Your task to perform on an android device: open app "The Home Depot" (install if not already installed) Image 0: 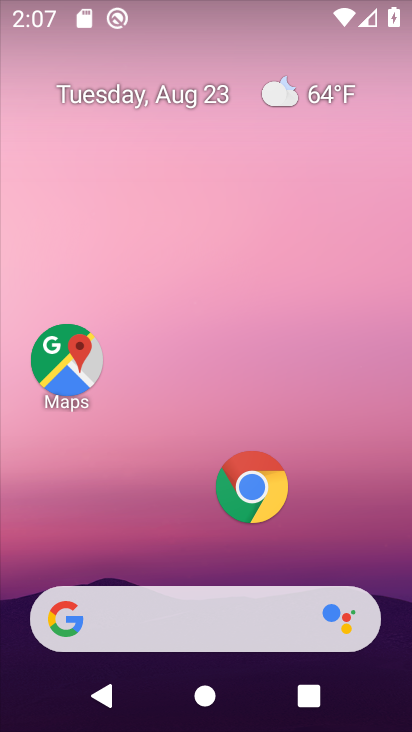
Step 0: drag from (138, 564) to (148, 205)
Your task to perform on an android device: open app "The Home Depot" (install if not already installed) Image 1: 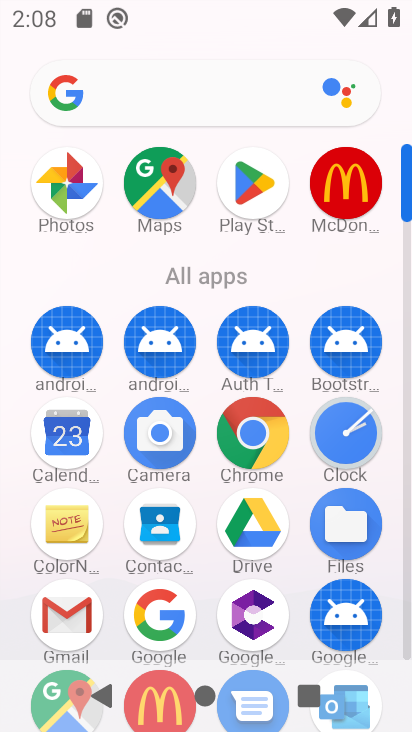
Step 1: click (239, 194)
Your task to perform on an android device: open app "The Home Depot" (install if not already installed) Image 2: 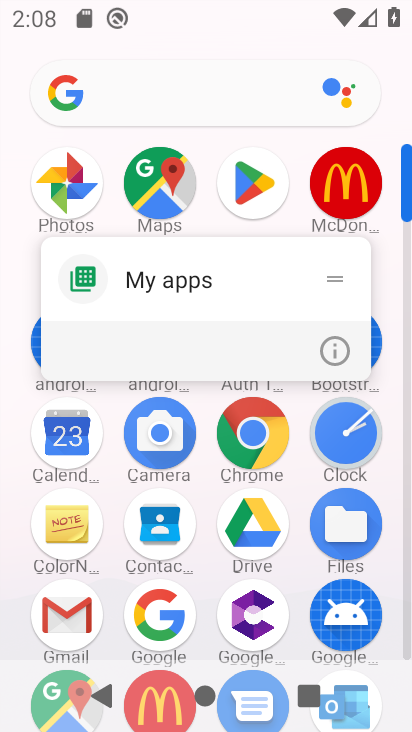
Step 2: click (239, 190)
Your task to perform on an android device: open app "The Home Depot" (install if not already installed) Image 3: 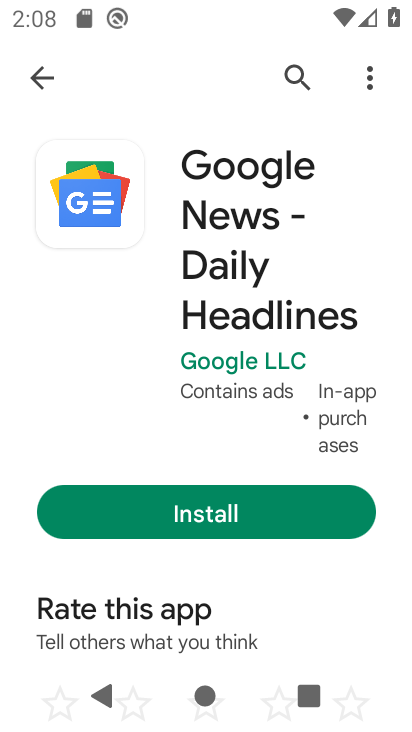
Step 3: click (40, 60)
Your task to perform on an android device: open app "The Home Depot" (install if not already installed) Image 4: 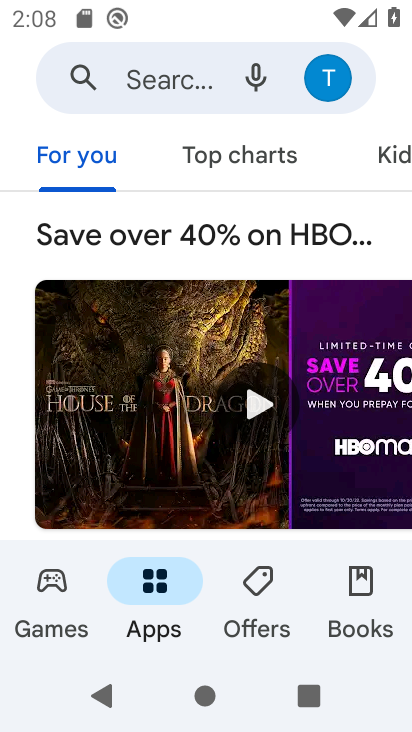
Step 4: click (149, 69)
Your task to perform on an android device: open app "The Home Depot" (install if not already installed) Image 5: 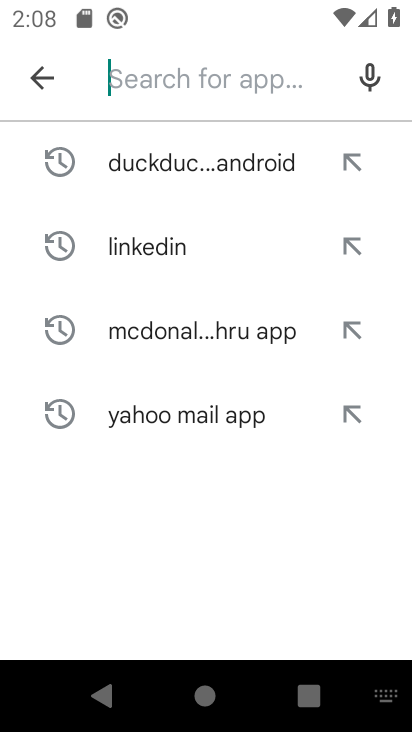
Step 5: type "The Home Depot "
Your task to perform on an android device: open app "The Home Depot" (install if not already installed) Image 6: 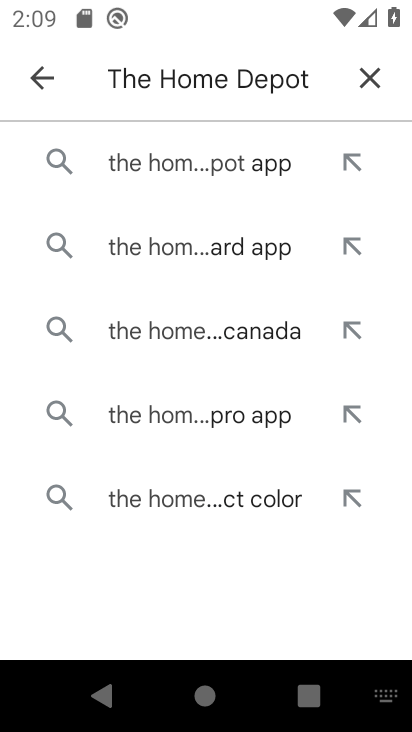
Step 6: click (218, 153)
Your task to perform on an android device: open app "The Home Depot" (install if not already installed) Image 7: 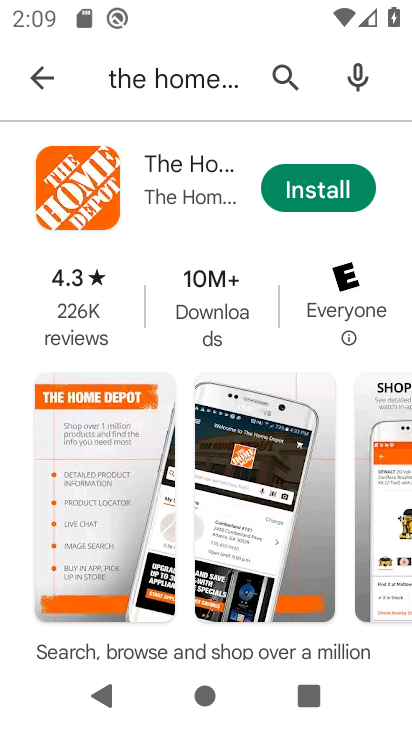
Step 7: click (341, 181)
Your task to perform on an android device: open app "The Home Depot" (install if not already installed) Image 8: 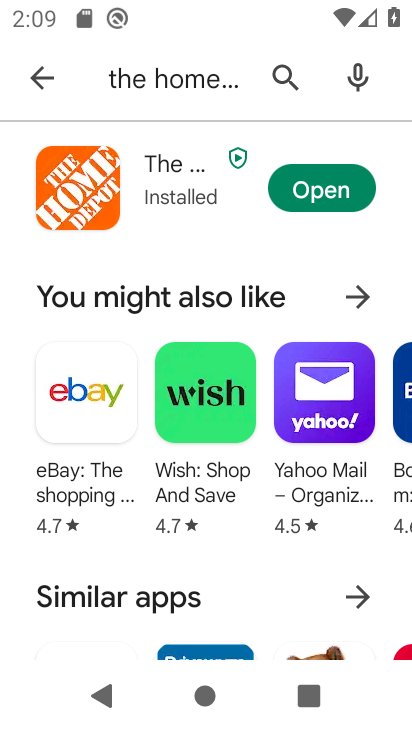
Step 8: click (341, 189)
Your task to perform on an android device: open app "The Home Depot" (install if not already installed) Image 9: 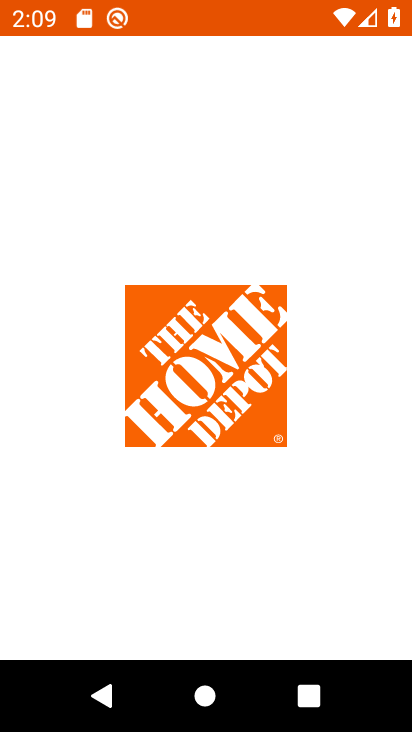
Step 9: task complete